Your task to perform on an android device: toggle airplane mode Image 0: 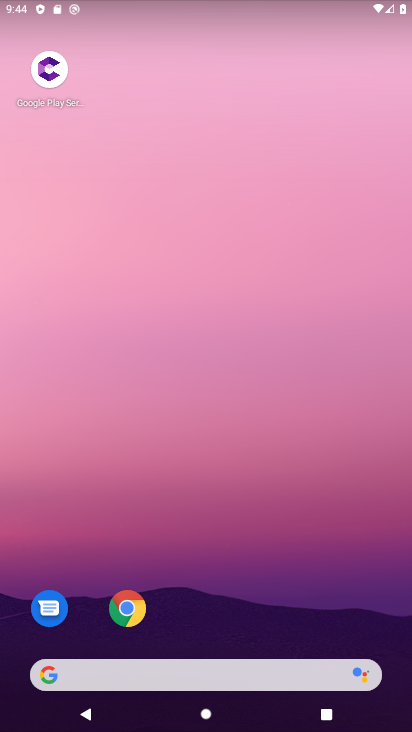
Step 0: drag from (251, 590) to (231, 240)
Your task to perform on an android device: toggle airplane mode Image 1: 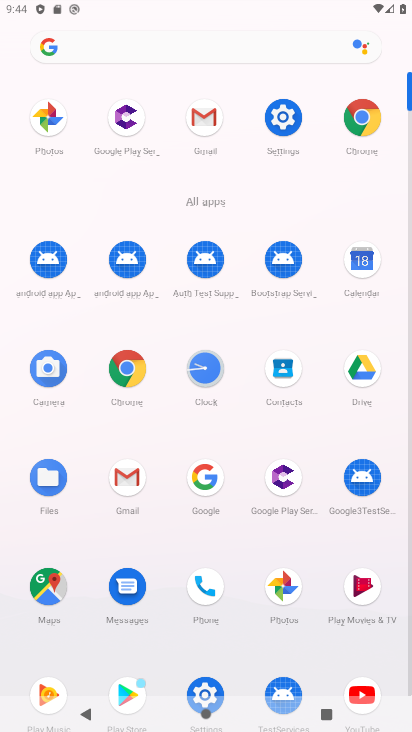
Step 1: click (275, 115)
Your task to perform on an android device: toggle airplane mode Image 2: 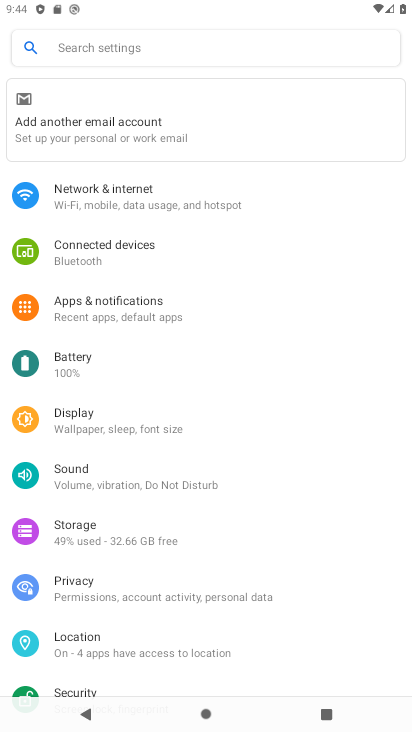
Step 2: click (255, 195)
Your task to perform on an android device: toggle airplane mode Image 3: 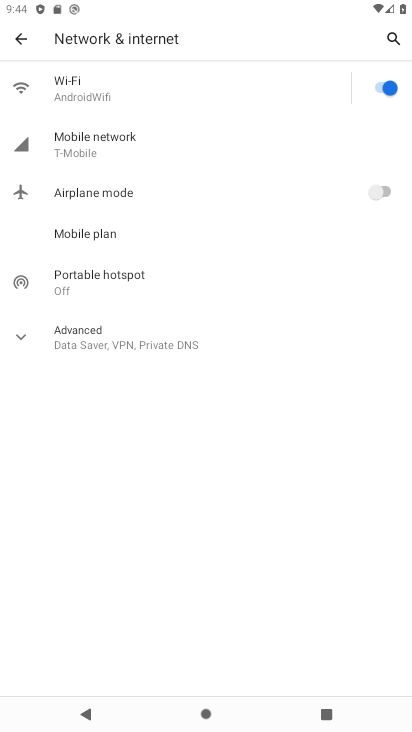
Step 3: click (376, 188)
Your task to perform on an android device: toggle airplane mode Image 4: 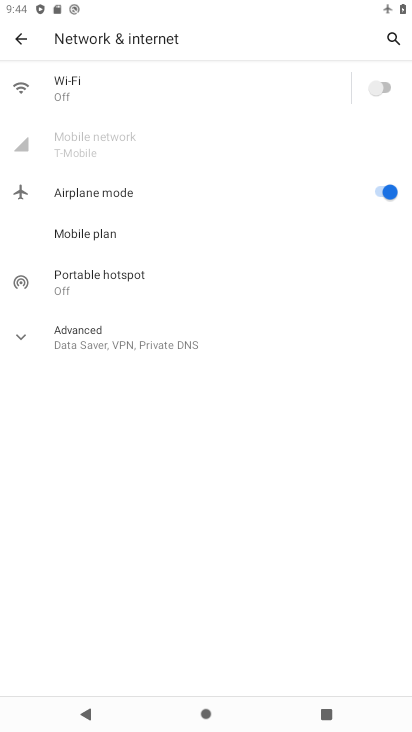
Step 4: task complete